Your task to perform on an android device: turn notification dots on Image 0: 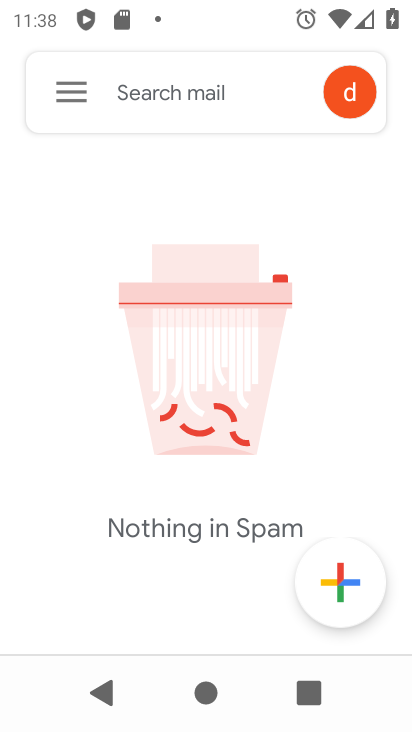
Step 0: press home button
Your task to perform on an android device: turn notification dots on Image 1: 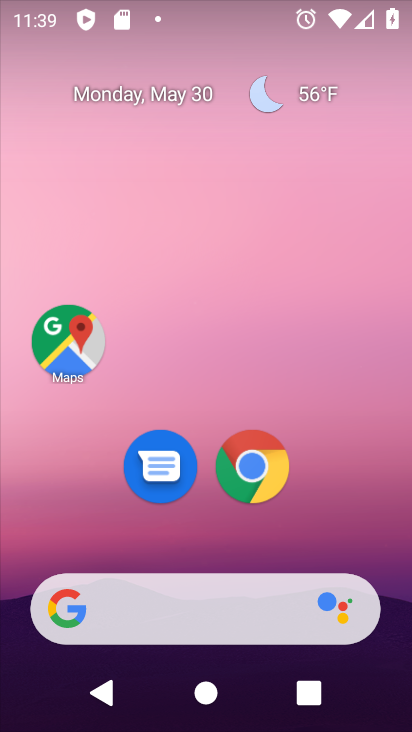
Step 1: drag from (225, 599) to (224, 204)
Your task to perform on an android device: turn notification dots on Image 2: 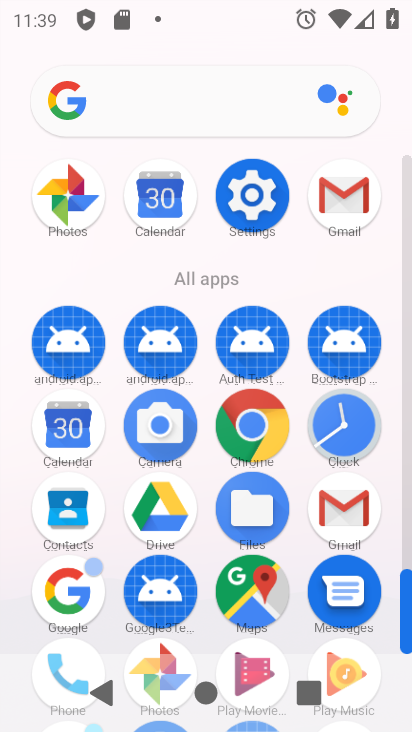
Step 2: click (251, 204)
Your task to perform on an android device: turn notification dots on Image 3: 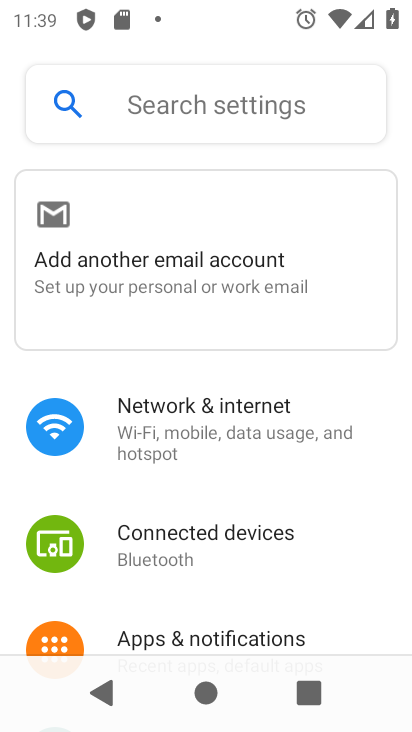
Step 3: click (241, 633)
Your task to perform on an android device: turn notification dots on Image 4: 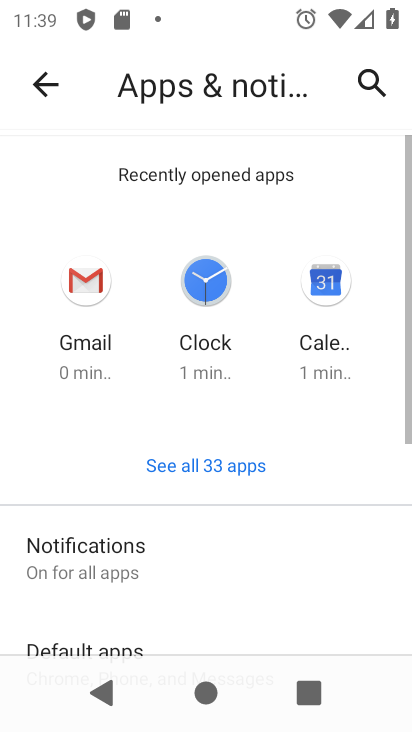
Step 4: click (216, 562)
Your task to perform on an android device: turn notification dots on Image 5: 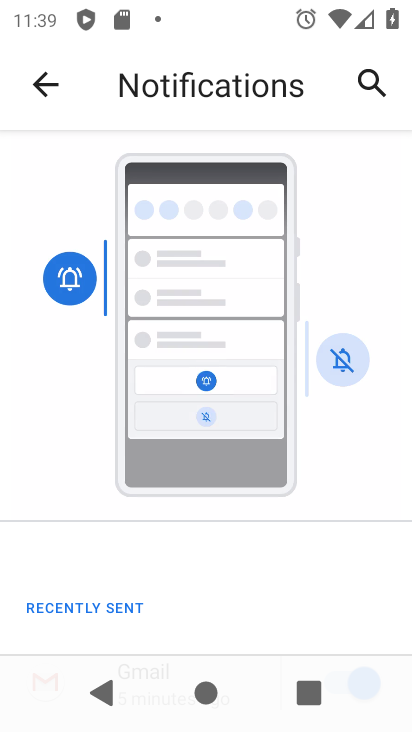
Step 5: drag from (177, 567) to (161, 157)
Your task to perform on an android device: turn notification dots on Image 6: 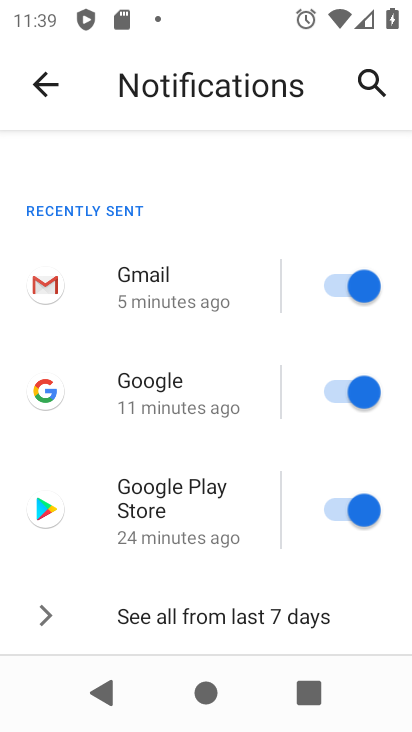
Step 6: drag from (263, 596) to (224, 279)
Your task to perform on an android device: turn notification dots on Image 7: 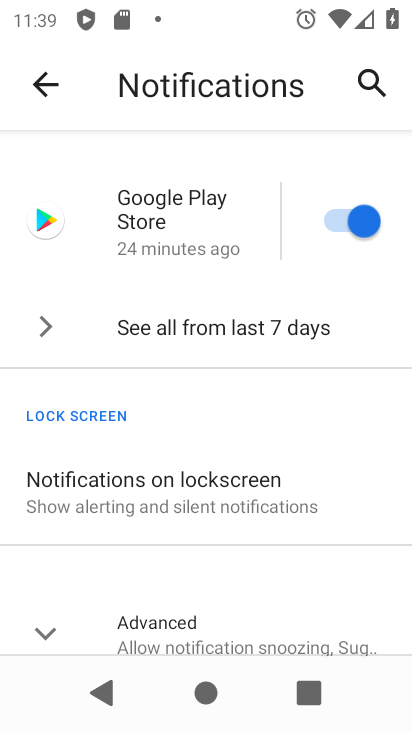
Step 7: drag from (248, 528) to (149, 66)
Your task to perform on an android device: turn notification dots on Image 8: 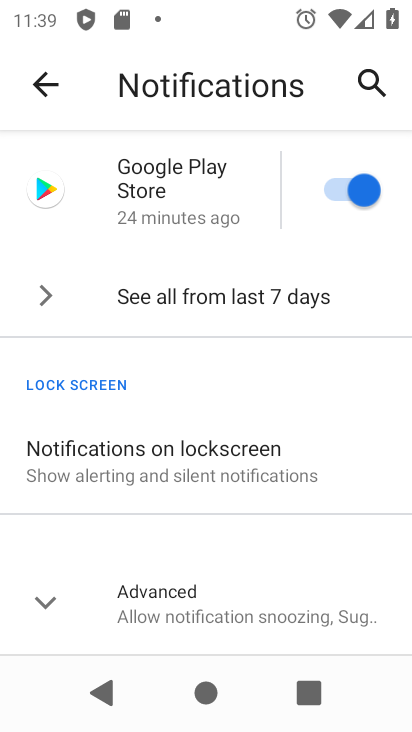
Step 8: click (180, 589)
Your task to perform on an android device: turn notification dots on Image 9: 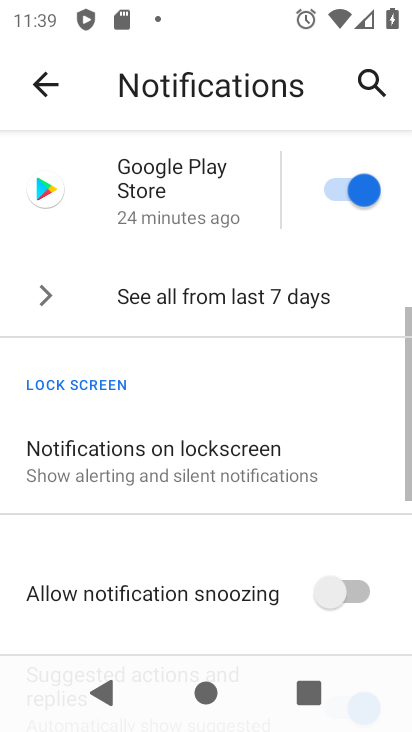
Step 9: task complete